Your task to perform on an android device: Search for vegetarian restaurants on Maps Image 0: 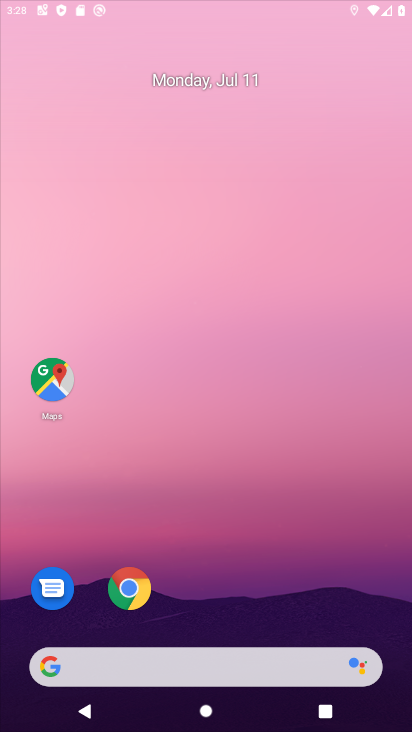
Step 0: drag from (251, 471) to (278, 253)
Your task to perform on an android device: Search for vegetarian restaurants on Maps Image 1: 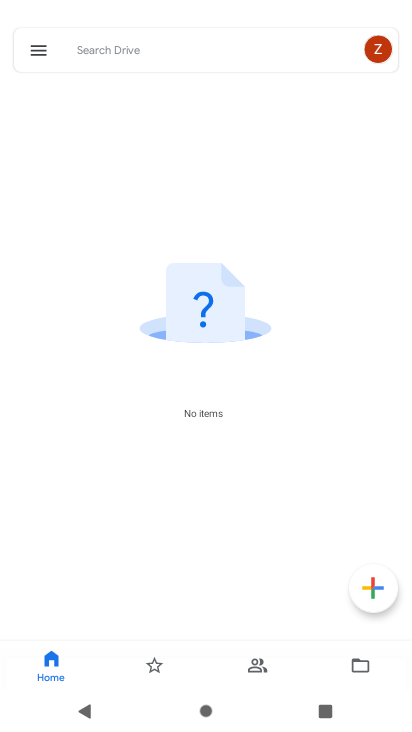
Step 1: press home button
Your task to perform on an android device: Search for vegetarian restaurants on Maps Image 2: 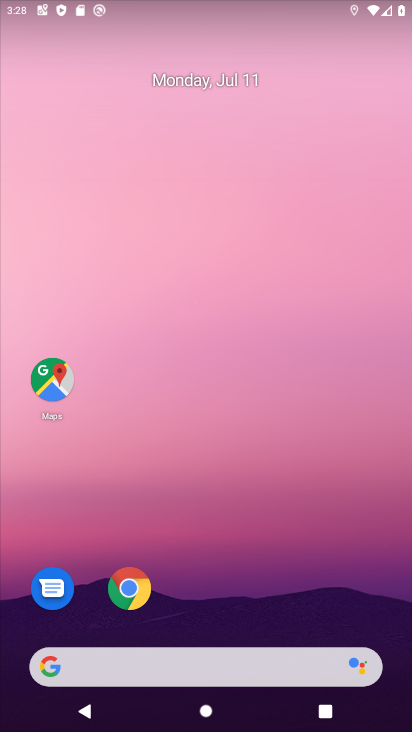
Step 2: click (53, 367)
Your task to perform on an android device: Search for vegetarian restaurants on Maps Image 3: 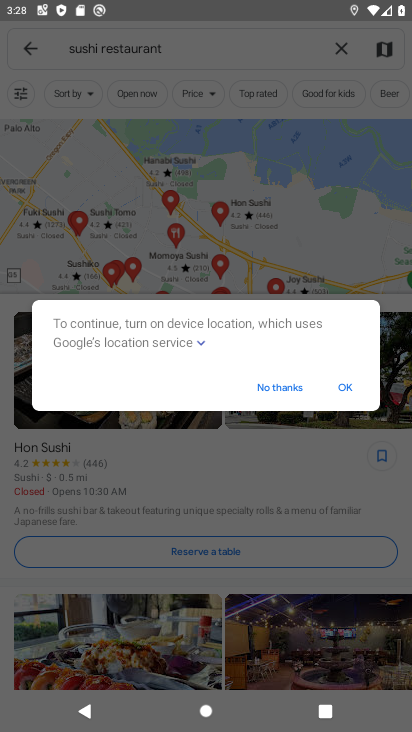
Step 3: click (336, 388)
Your task to perform on an android device: Search for vegetarian restaurants on Maps Image 4: 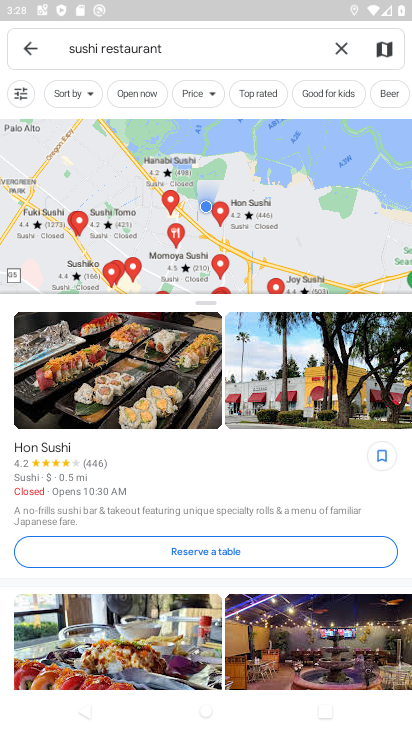
Step 4: click (334, 48)
Your task to perform on an android device: Search for vegetarian restaurants on Maps Image 5: 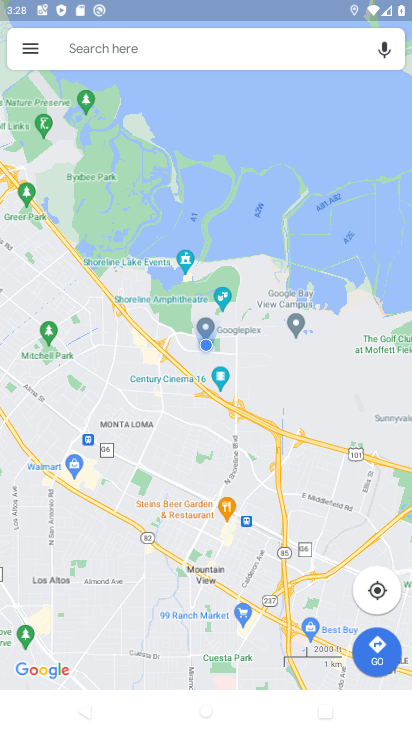
Step 5: click (201, 45)
Your task to perform on an android device: Search for vegetarian restaurants on Maps Image 6: 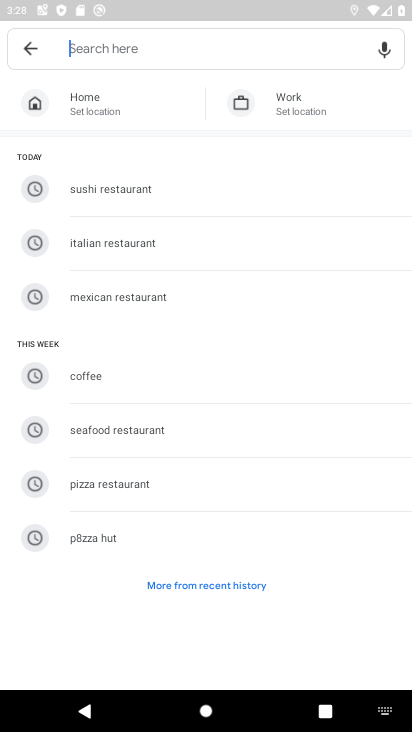
Step 6: type "vegetarian restaurants"
Your task to perform on an android device: Search for vegetarian restaurants on Maps Image 7: 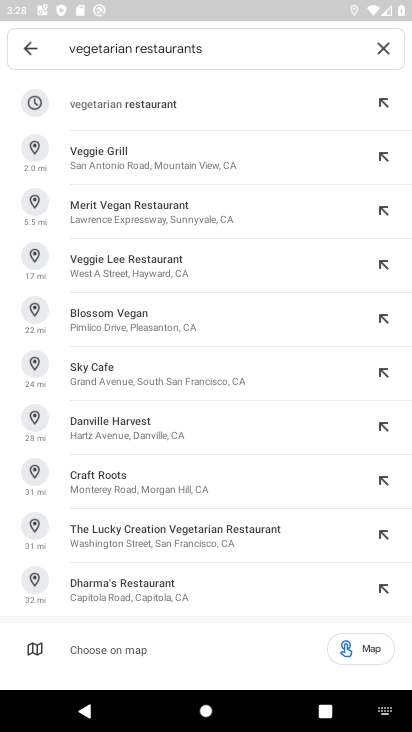
Step 7: click (69, 117)
Your task to perform on an android device: Search for vegetarian restaurants on Maps Image 8: 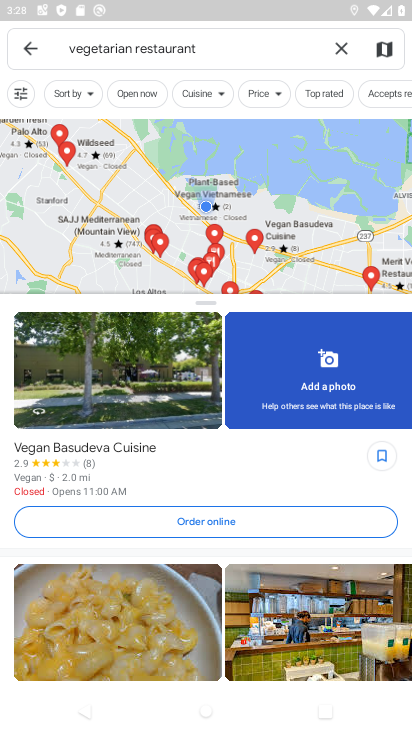
Step 8: task complete